Your task to perform on an android device: empty trash in google photos Image 0: 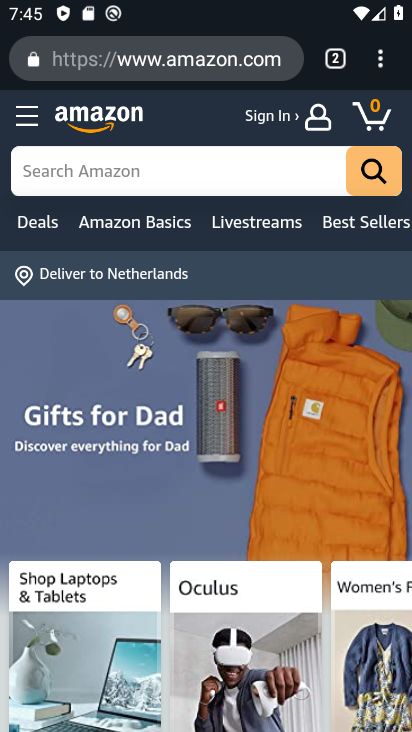
Step 0: press home button
Your task to perform on an android device: empty trash in google photos Image 1: 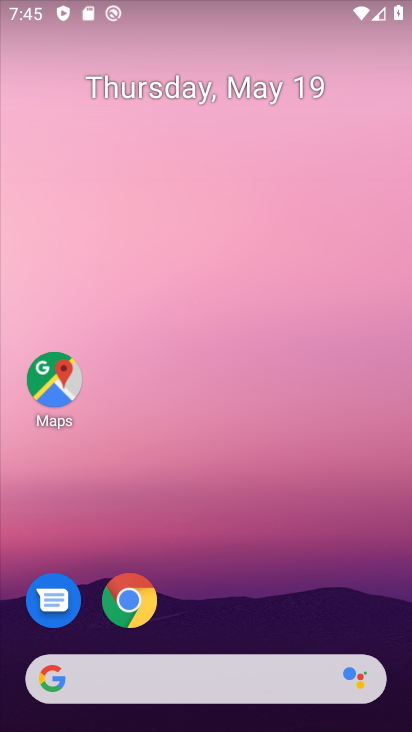
Step 1: drag from (283, 626) to (266, 1)
Your task to perform on an android device: empty trash in google photos Image 2: 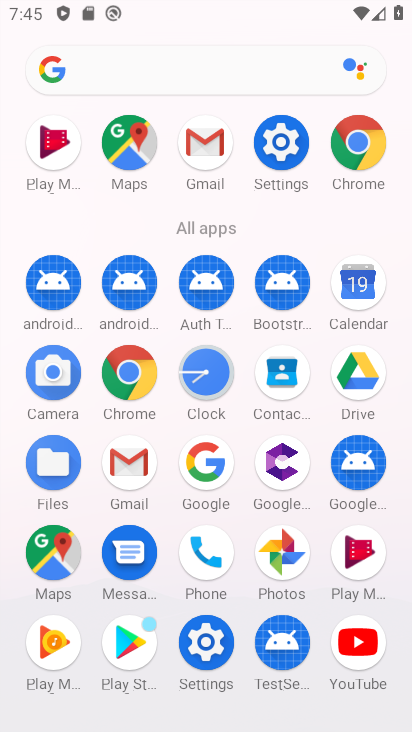
Step 2: click (276, 559)
Your task to perform on an android device: empty trash in google photos Image 3: 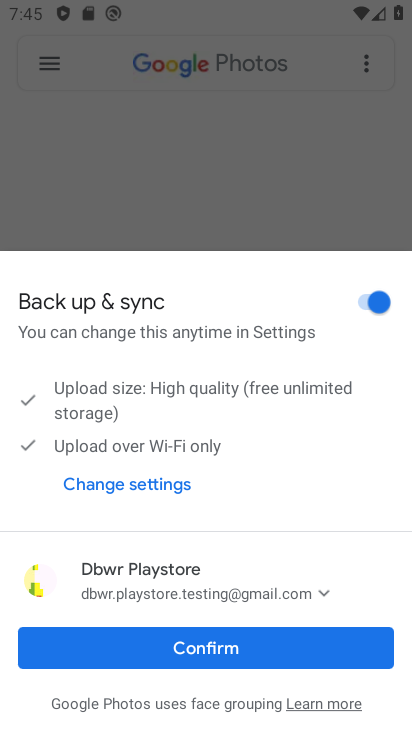
Step 3: click (211, 653)
Your task to perform on an android device: empty trash in google photos Image 4: 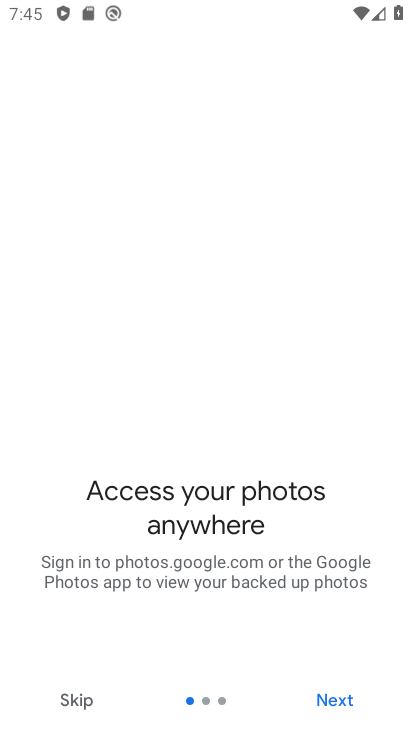
Step 4: click (70, 702)
Your task to perform on an android device: empty trash in google photos Image 5: 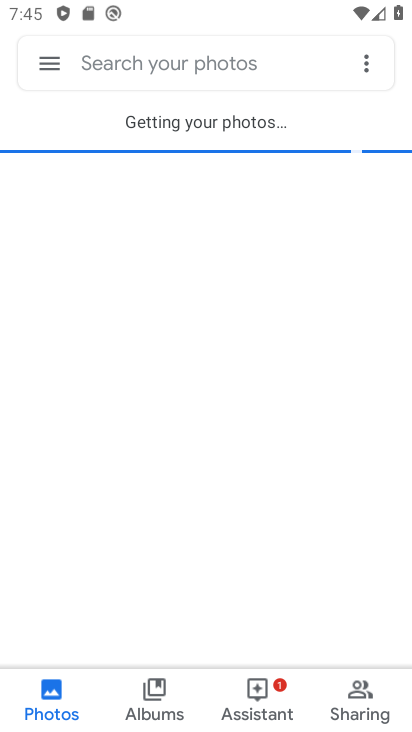
Step 5: click (49, 69)
Your task to perform on an android device: empty trash in google photos Image 6: 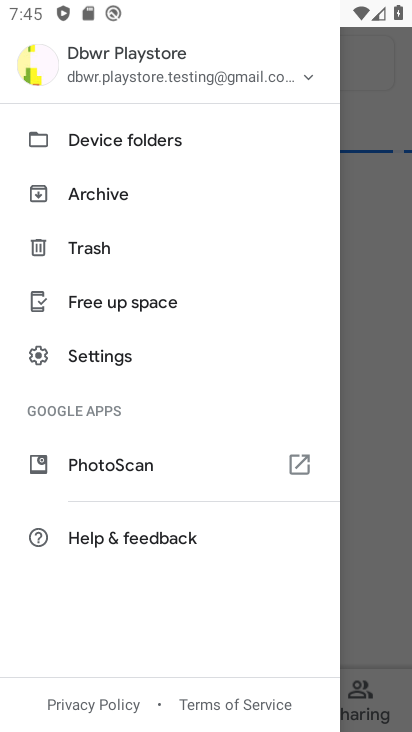
Step 6: click (89, 252)
Your task to perform on an android device: empty trash in google photos Image 7: 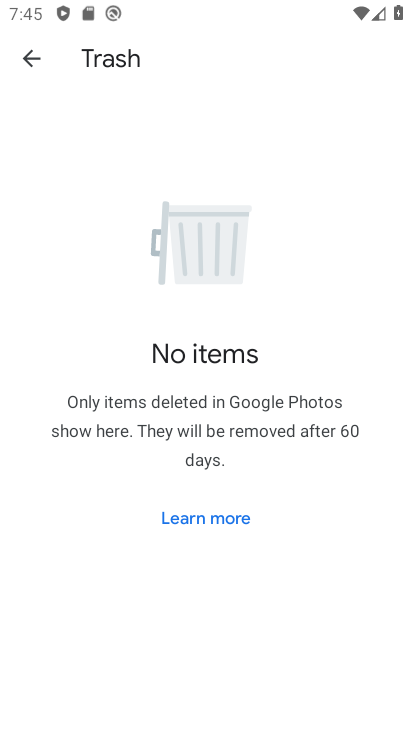
Step 7: task complete